Your task to perform on an android device: open app "WhatsApp Messenger" (install if not already installed) and go to login screen Image 0: 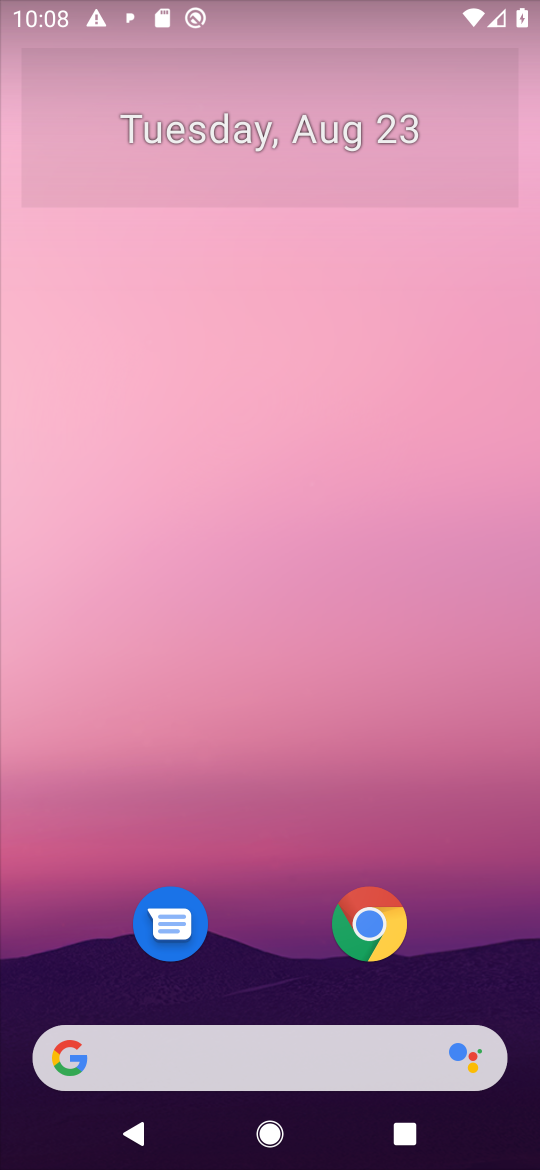
Step 0: press home button
Your task to perform on an android device: open app "WhatsApp Messenger" (install if not already installed) and go to login screen Image 1: 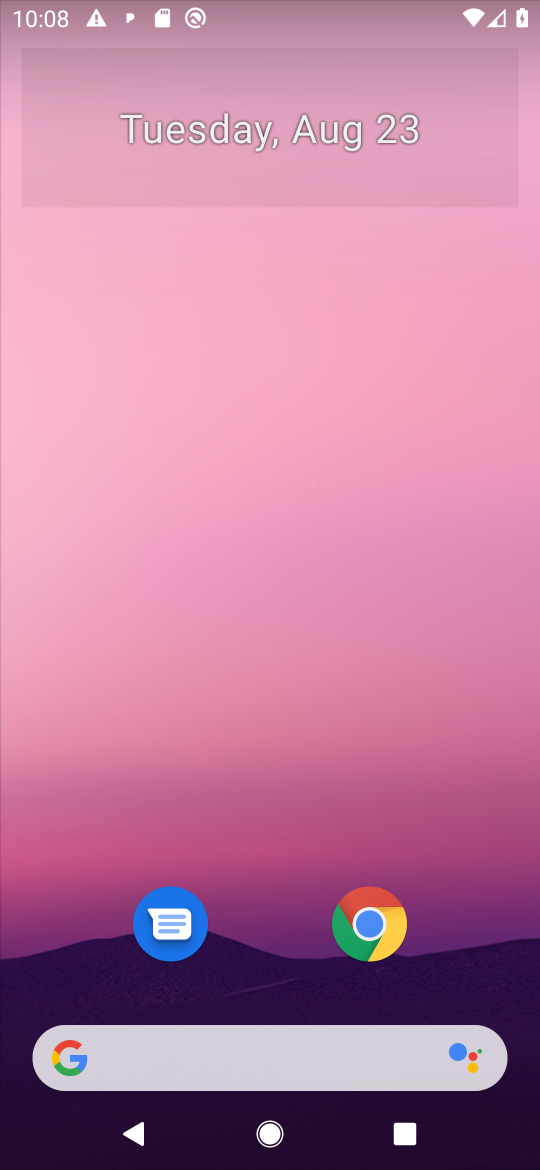
Step 1: drag from (470, 938) to (459, 145)
Your task to perform on an android device: open app "WhatsApp Messenger" (install if not already installed) and go to login screen Image 2: 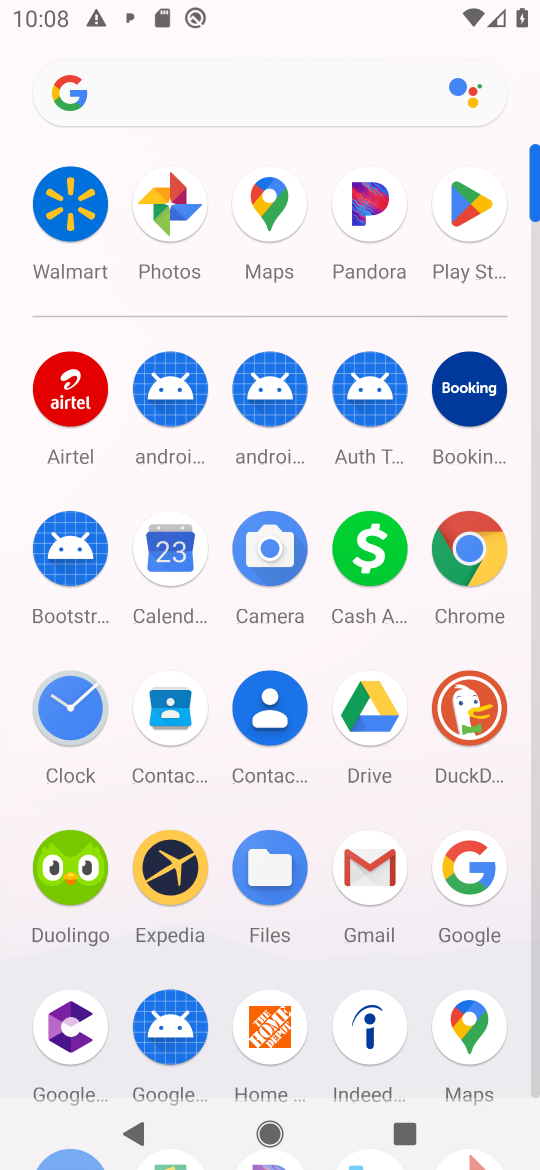
Step 2: click (466, 215)
Your task to perform on an android device: open app "WhatsApp Messenger" (install if not already installed) and go to login screen Image 3: 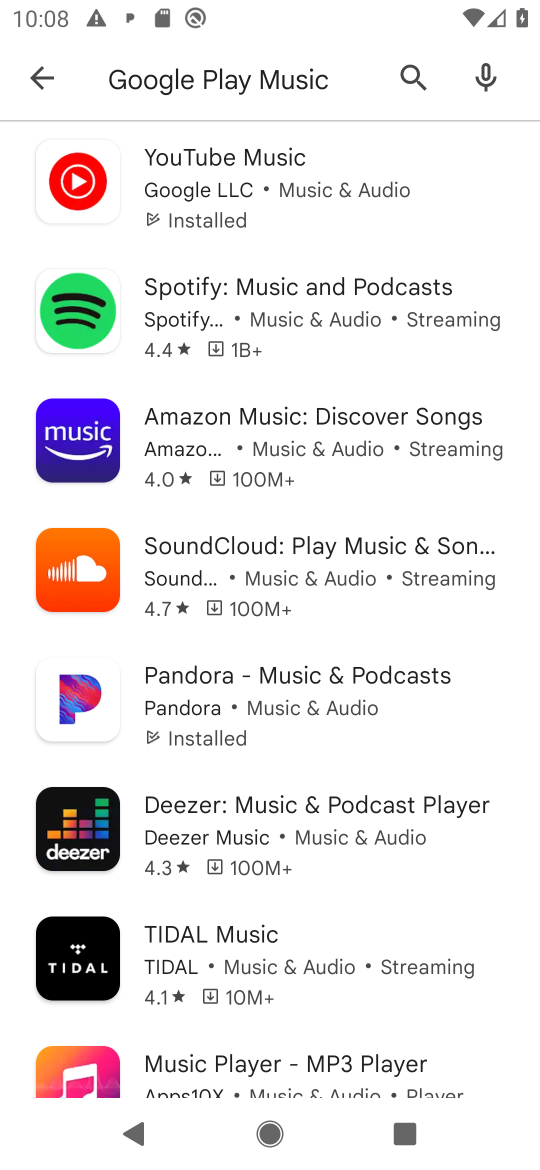
Step 3: press back button
Your task to perform on an android device: open app "WhatsApp Messenger" (install if not already installed) and go to login screen Image 4: 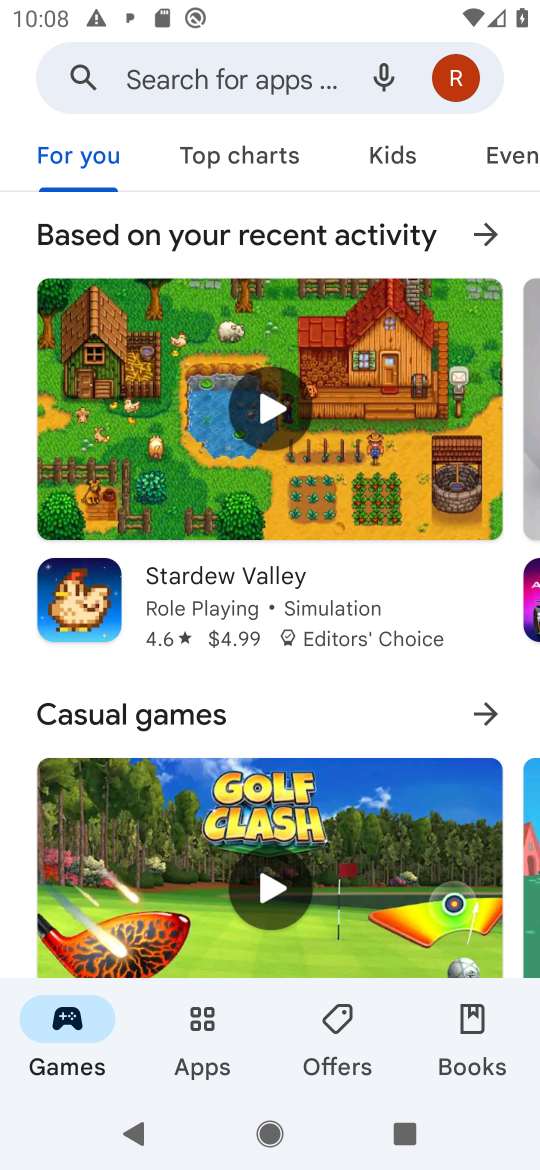
Step 4: click (251, 81)
Your task to perform on an android device: open app "WhatsApp Messenger" (install if not already installed) and go to login screen Image 5: 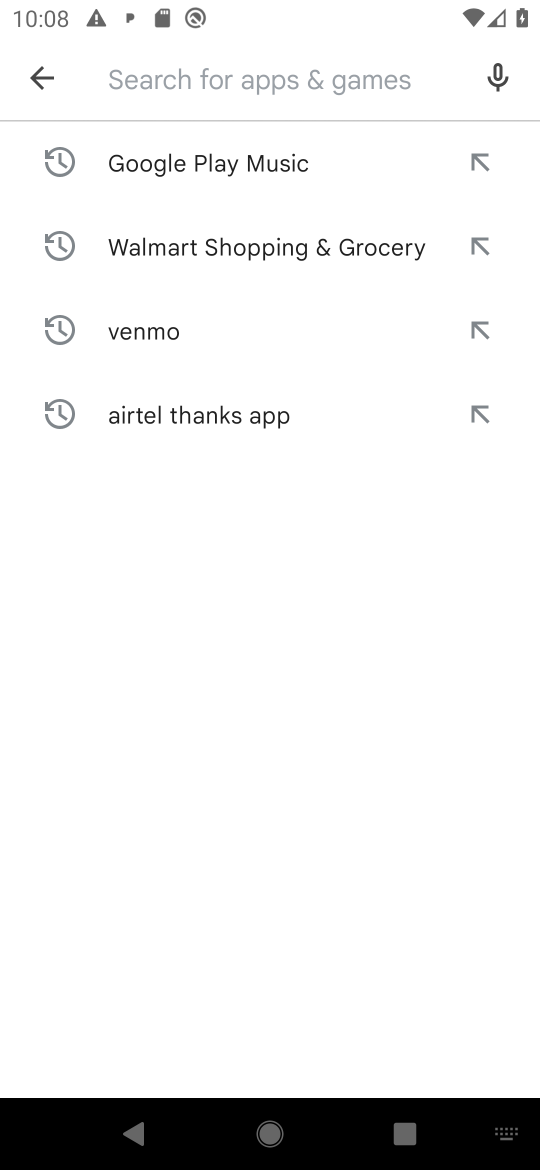
Step 5: type "WhatsApp Messenger"
Your task to perform on an android device: open app "WhatsApp Messenger" (install if not already installed) and go to login screen Image 6: 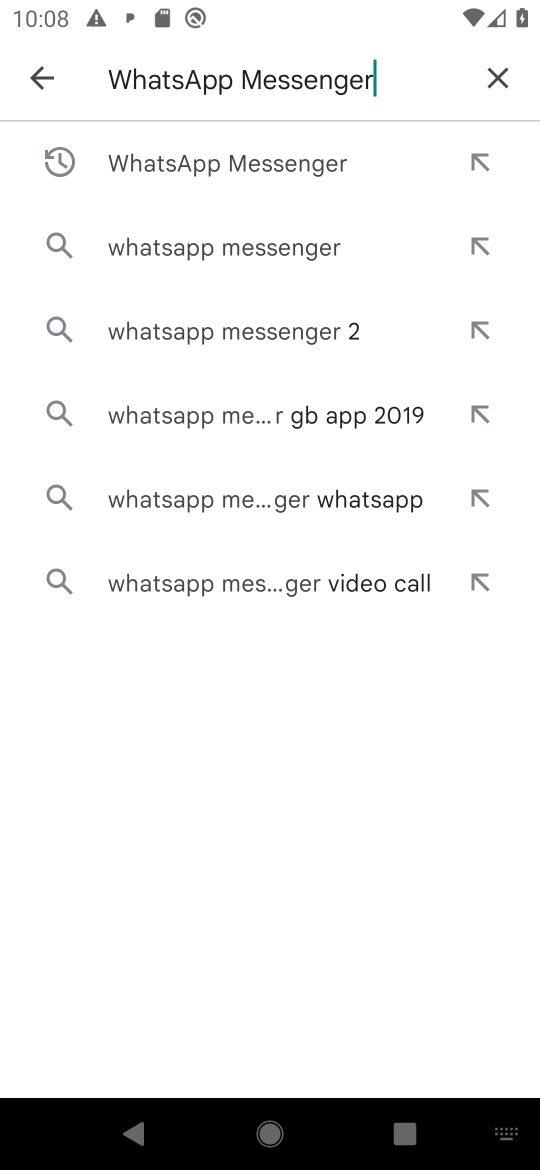
Step 6: press enter
Your task to perform on an android device: open app "WhatsApp Messenger" (install if not already installed) and go to login screen Image 7: 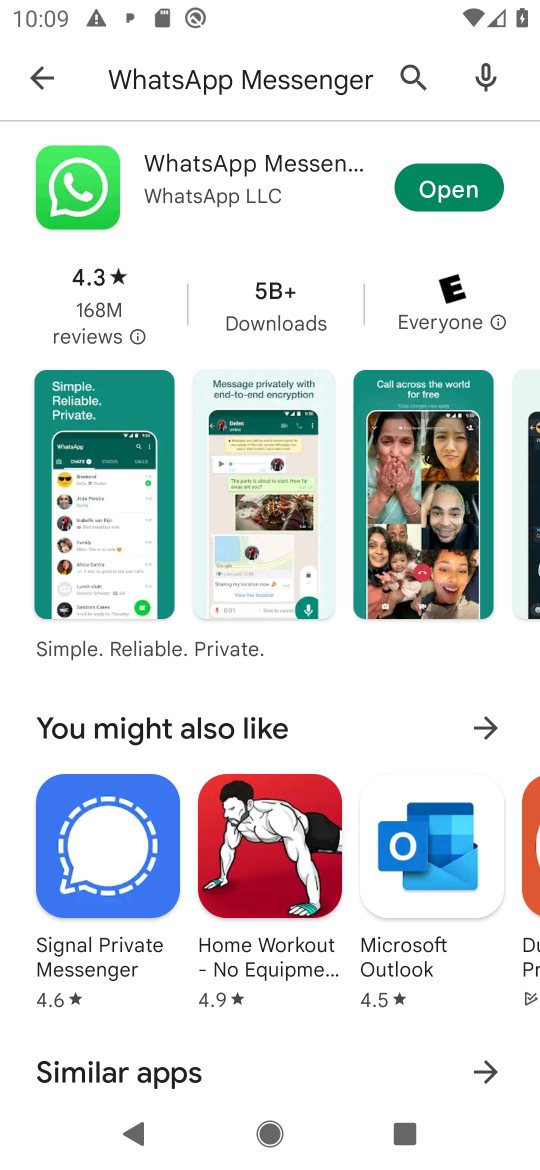
Step 7: click (454, 188)
Your task to perform on an android device: open app "WhatsApp Messenger" (install if not already installed) and go to login screen Image 8: 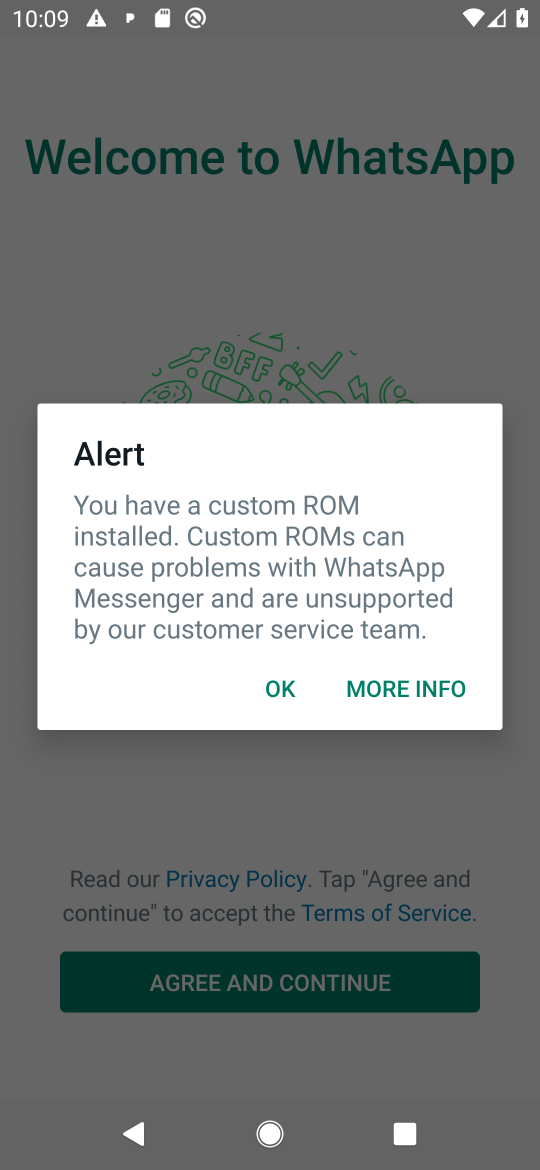
Step 8: click (279, 686)
Your task to perform on an android device: open app "WhatsApp Messenger" (install if not already installed) and go to login screen Image 9: 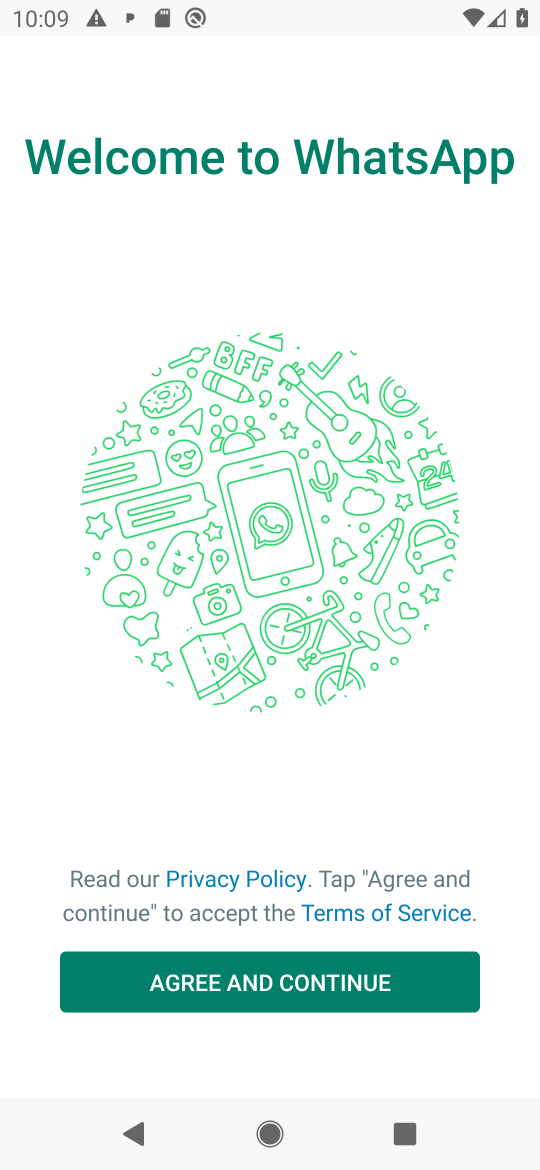
Step 9: click (348, 978)
Your task to perform on an android device: open app "WhatsApp Messenger" (install if not already installed) and go to login screen Image 10: 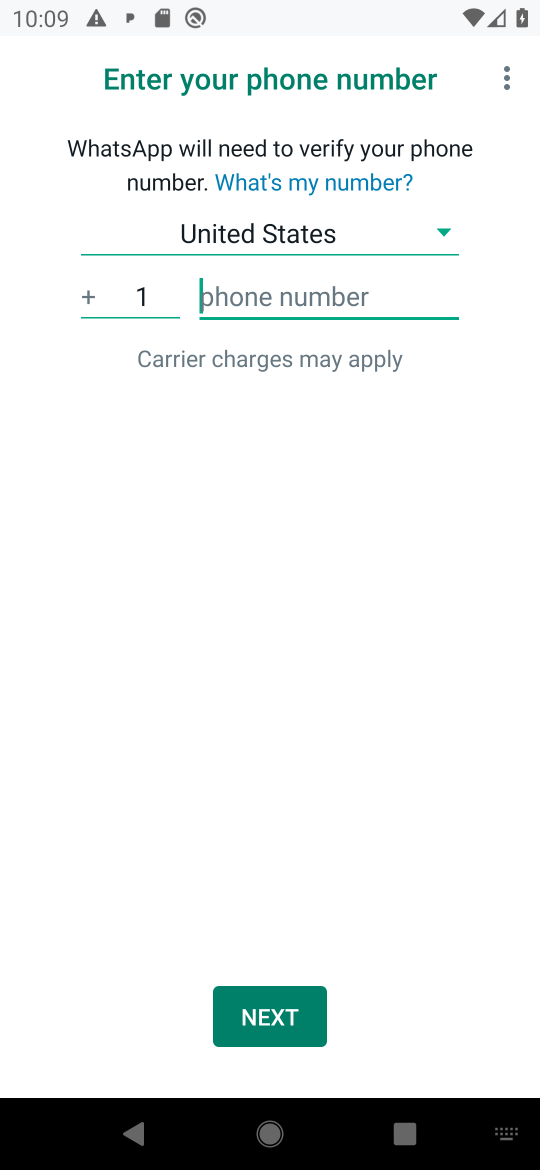
Step 10: task complete